Your task to perform on an android device: add a label to a message in the gmail app Image 0: 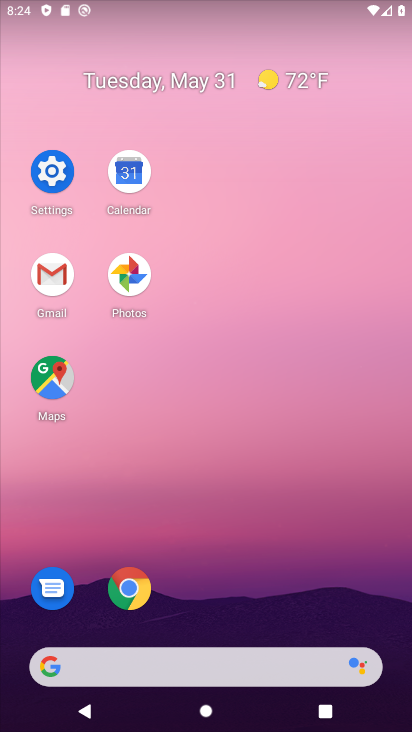
Step 0: click (46, 277)
Your task to perform on an android device: add a label to a message in the gmail app Image 1: 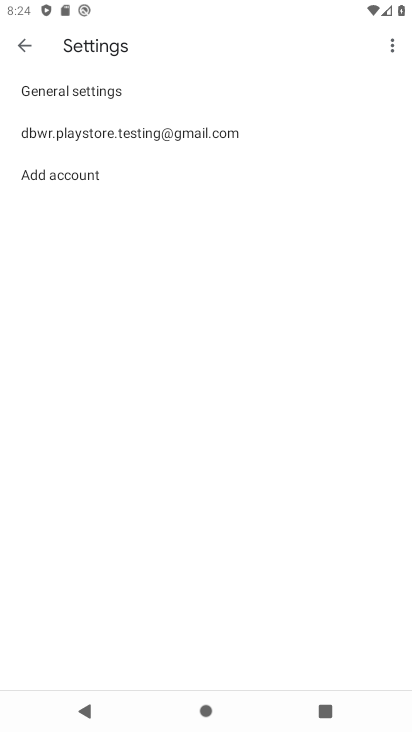
Step 1: click (23, 48)
Your task to perform on an android device: add a label to a message in the gmail app Image 2: 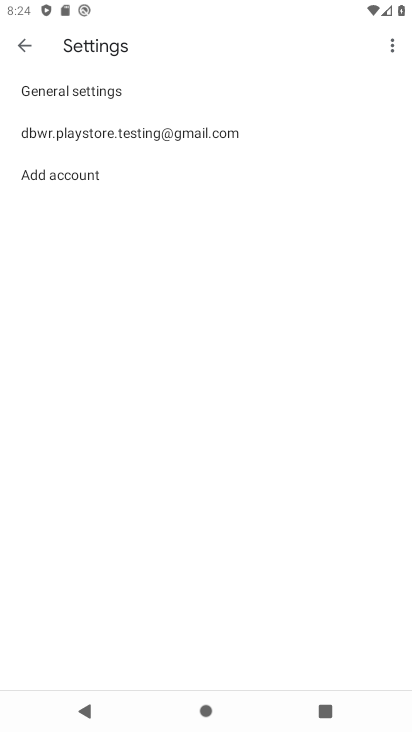
Step 2: click (34, 47)
Your task to perform on an android device: add a label to a message in the gmail app Image 3: 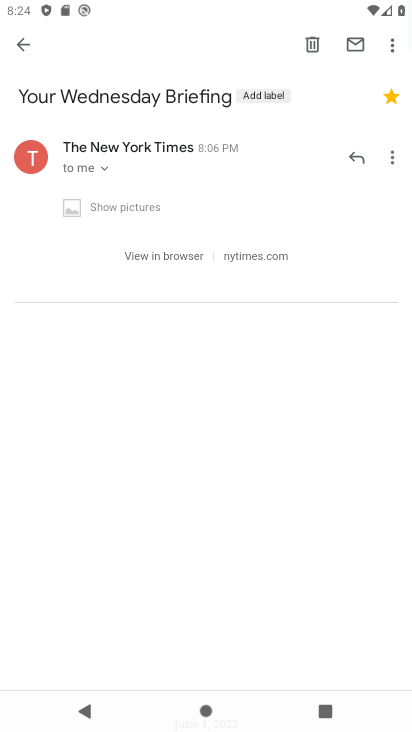
Step 3: click (34, 47)
Your task to perform on an android device: add a label to a message in the gmail app Image 4: 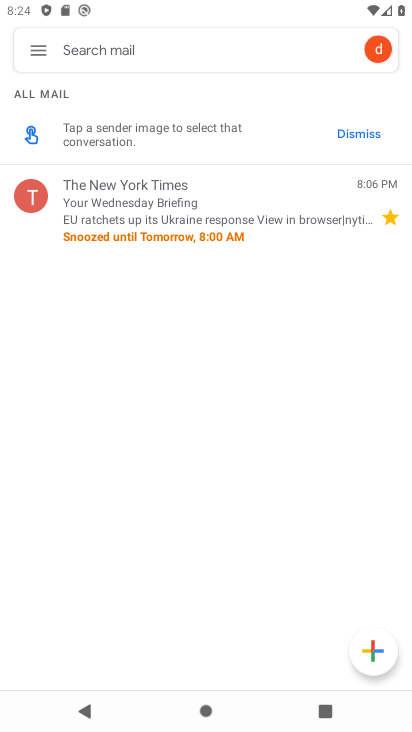
Step 4: click (178, 204)
Your task to perform on an android device: add a label to a message in the gmail app Image 5: 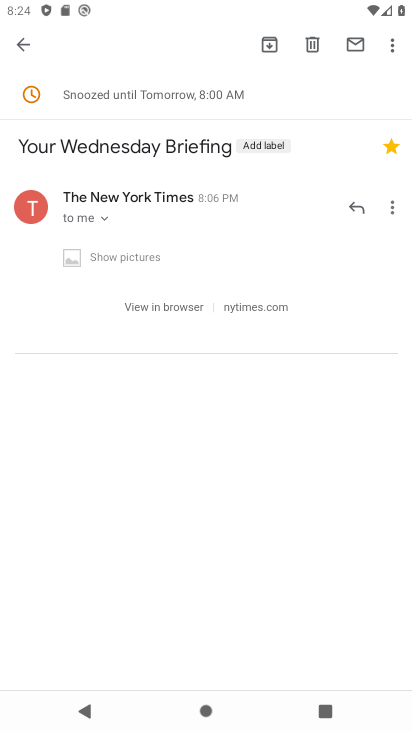
Step 5: click (394, 214)
Your task to perform on an android device: add a label to a message in the gmail app Image 6: 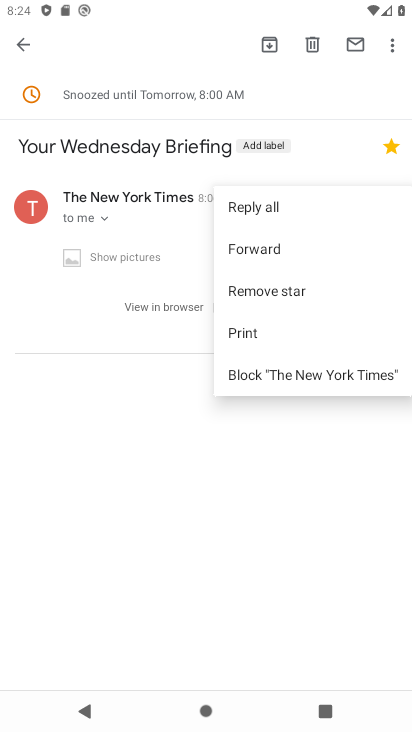
Step 6: click (383, 49)
Your task to perform on an android device: add a label to a message in the gmail app Image 7: 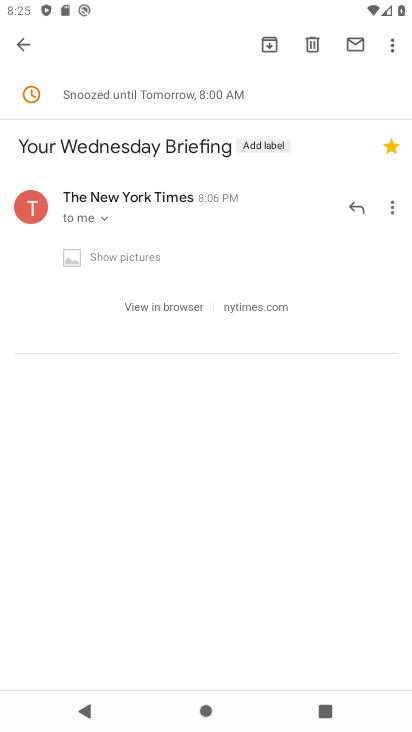
Step 7: click (395, 50)
Your task to perform on an android device: add a label to a message in the gmail app Image 8: 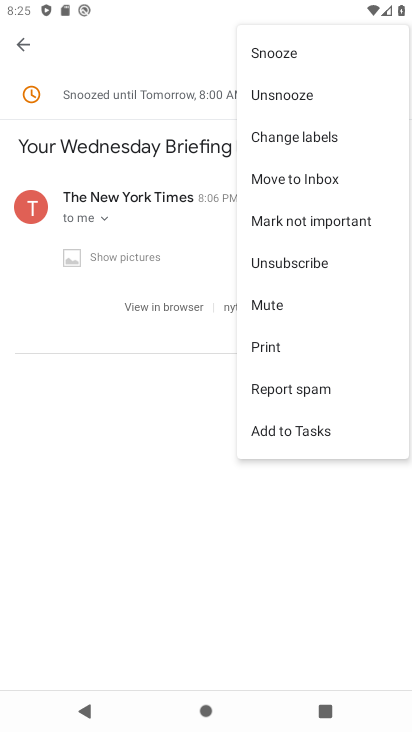
Step 8: click (294, 130)
Your task to perform on an android device: add a label to a message in the gmail app Image 9: 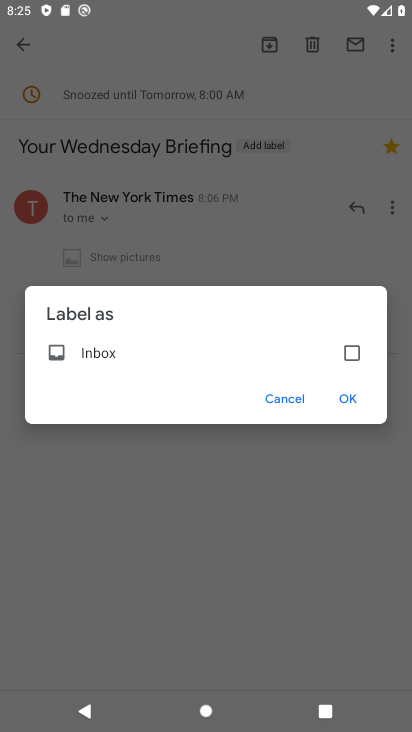
Step 9: click (351, 347)
Your task to perform on an android device: add a label to a message in the gmail app Image 10: 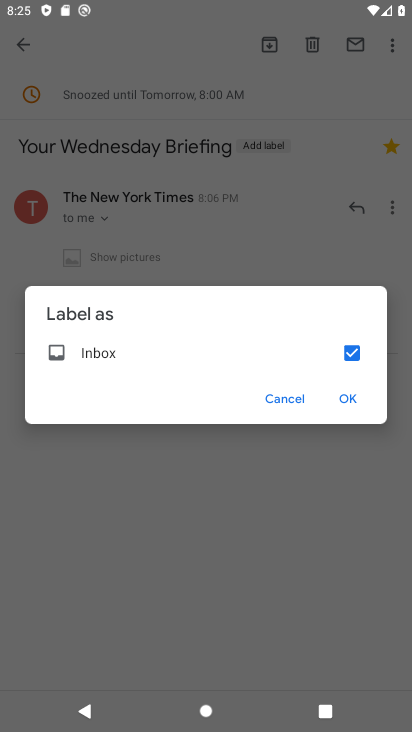
Step 10: click (347, 399)
Your task to perform on an android device: add a label to a message in the gmail app Image 11: 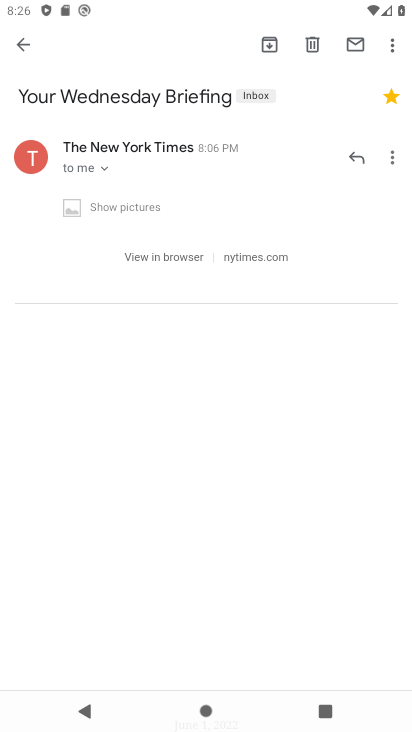
Step 11: task complete